Your task to perform on an android device: turn off location history Image 0: 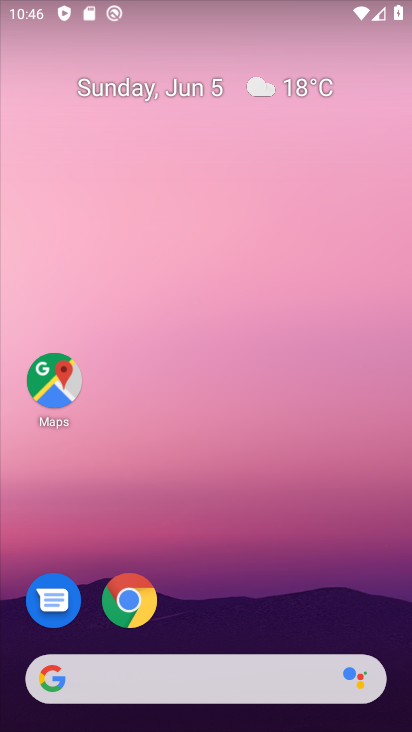
Step 0: drag from (280, 565) to (283, 203)
Your task to perform on an android device: turn off location history Image 1: 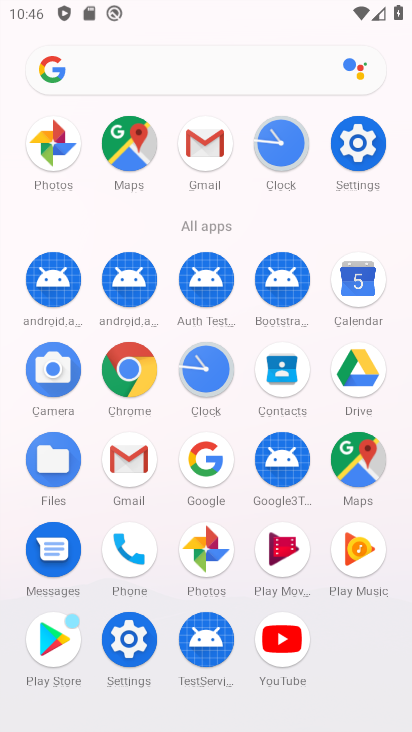
Step 1: click (353, 157)
Your task to perform on an android device: turn off location history Image 2: 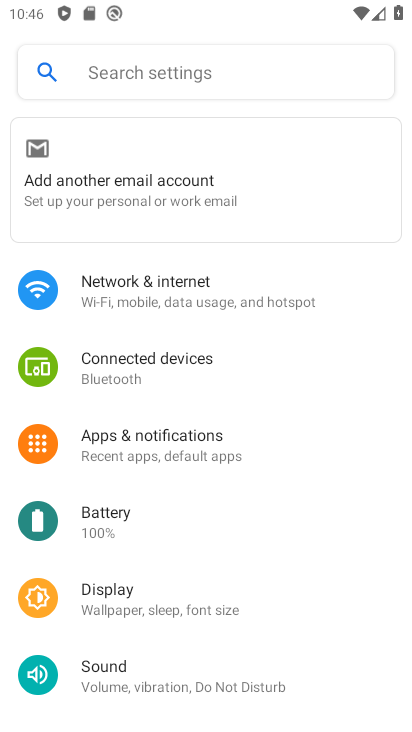
Step 2: drag from (282, 483) to (293, 225)
Your task to perform on an android device: turn off location history Image 3: 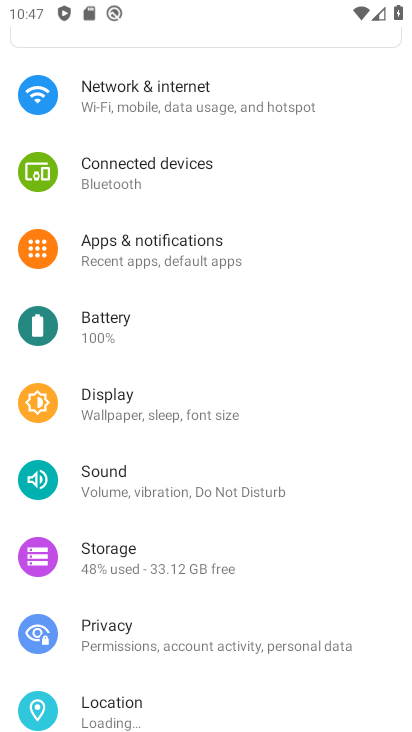
Step 3: drag from (229, 592) to (243, 328)
Your task to perform on an android device: turn off location history Image 4: 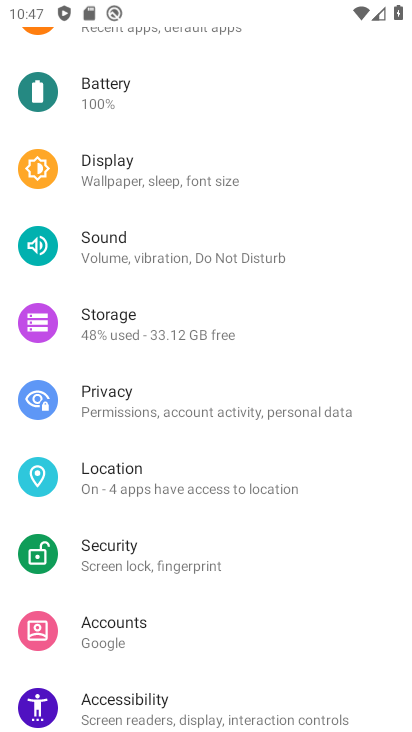
Step 4: click (142, 484)
Your task to perform on an android device: turn off location history Image 5: 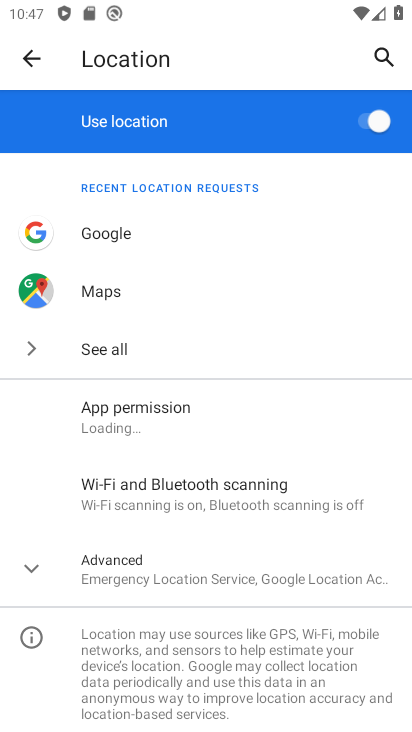
Step 5: drag from (303, 548) to (349, 315)
Your task to perform on an android device: turn off location history Image 6: 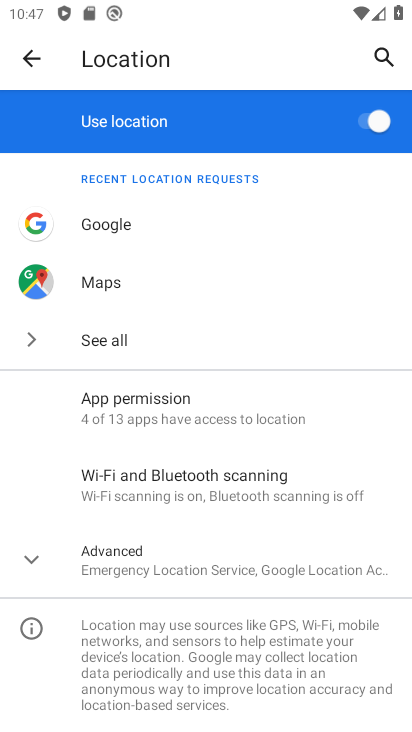
Step 6: click (362, 122)
Your task to perform on an android device: turn off location history Image 7: 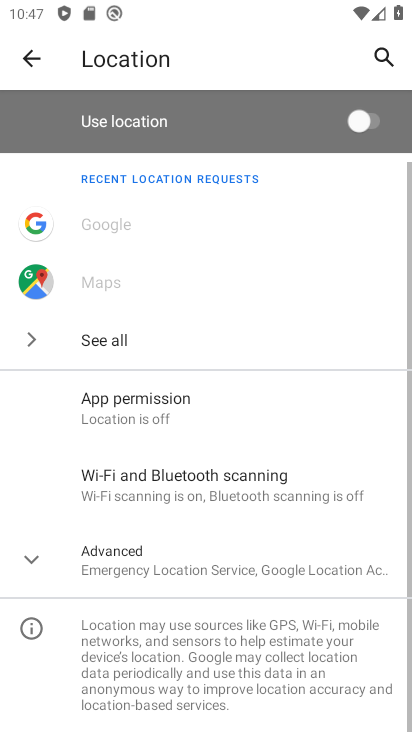
Step 7: task complete